Your task to perform on an android device: turn on javascript in the chrome app Image 0: 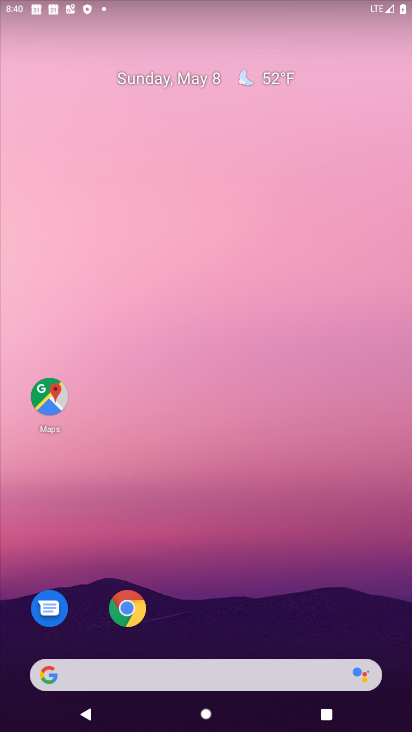
Step 0: drag from (280, 586) to (230, 3)
Your task to perform on an android device: turn on javascript in the chrome app Image 1: 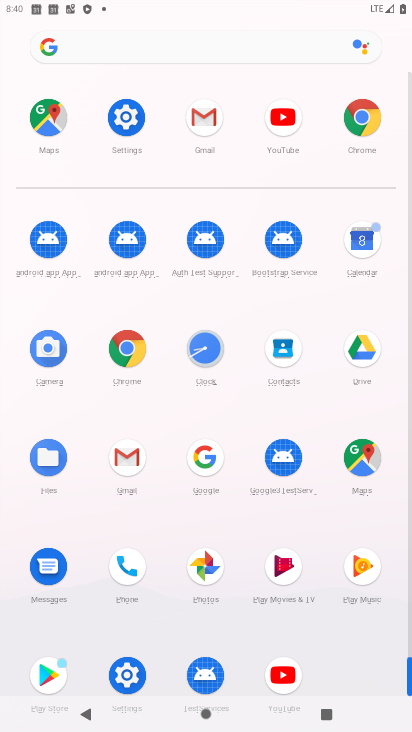
Step 1: click (126, 347)
Your task to perform on an android device: turn on javascript in the chrome app Image 2: 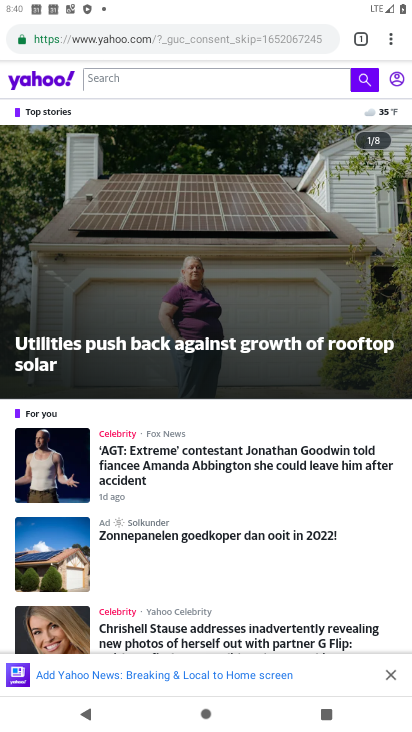
Step 2: drag from (389, 40) to (259, 427)
Your task to perform on an android device: turn on javascript in the chrome app Image 3: 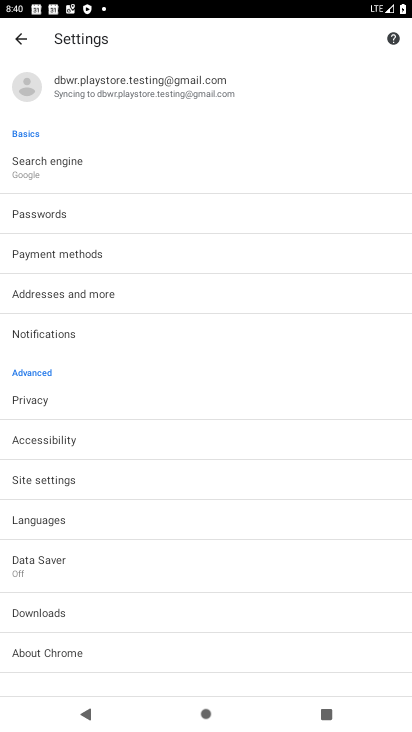
Step 3: drag from (206, 600) to (209, 72)
Your task to perform on an android device: turn on javascript in the chrome app Image 4: 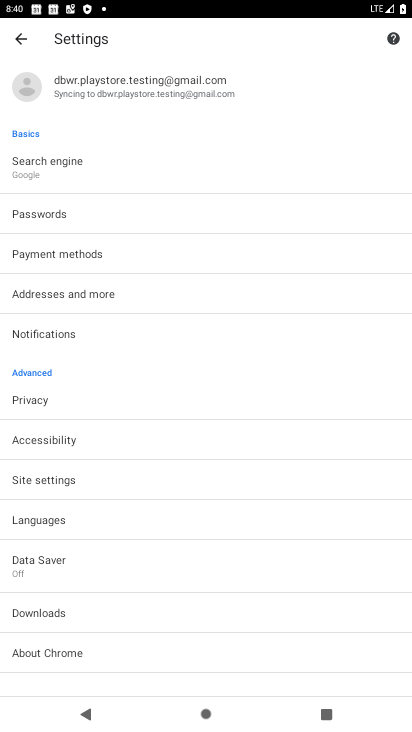
Step 4: click (64, 479)
Your task to perform on an android device: turn on javascript in the chrome app Image 5: 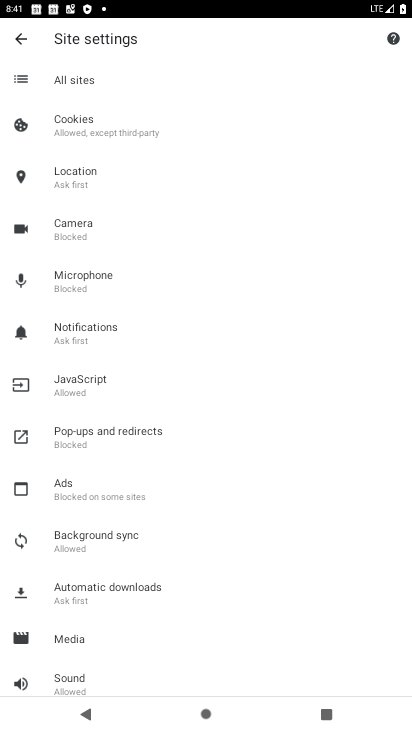
Step 5: click (103, 383)
Your task to perform on an android device: turn on javascript in the chrome app Image 6: 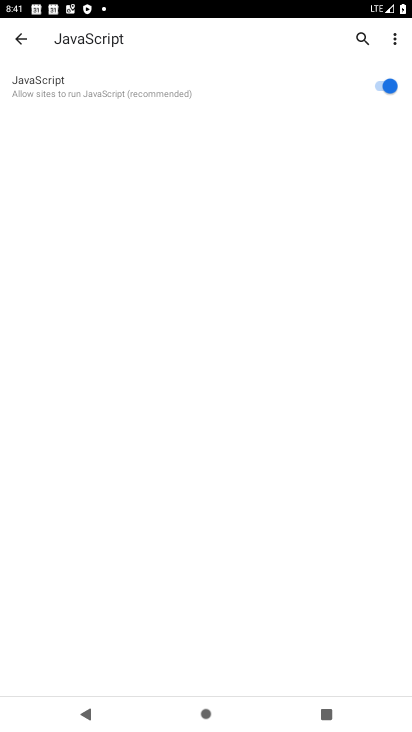
Step 6: task complete